Your task to perform on an android device: When is my next appointment? Image 0: 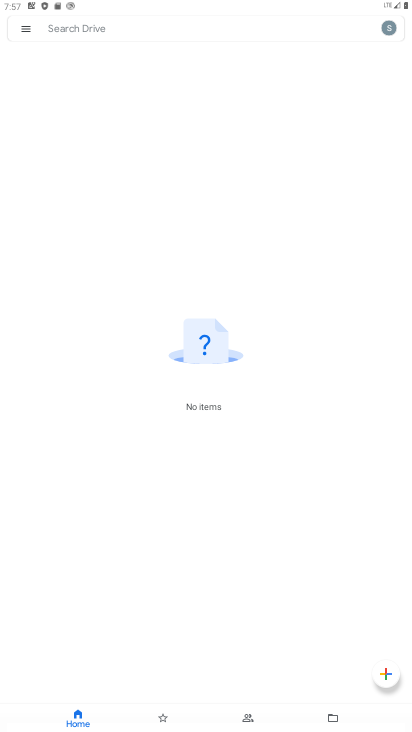
Step 0: press home button
Your task to perform on an android device: When is my next appointment? Image 1: 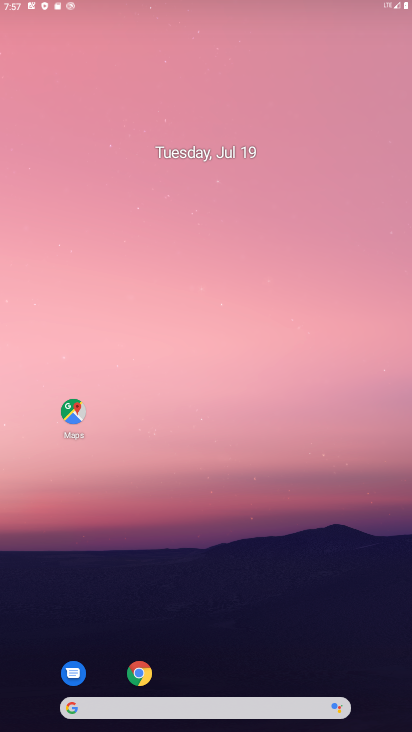
Step 1: drag from (363, 656) to (219, 59)
Your task to perform on an android device: When is my next appointment? Image 2: 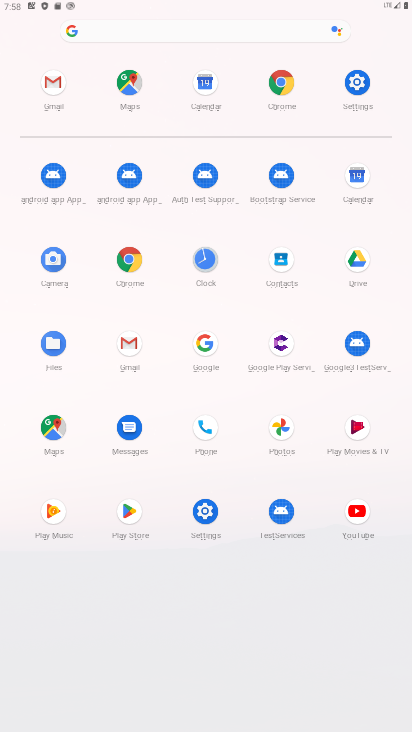
Step 2: click (355, 184)
Your task to perform on an android device: When is my next appointment? Image 3: 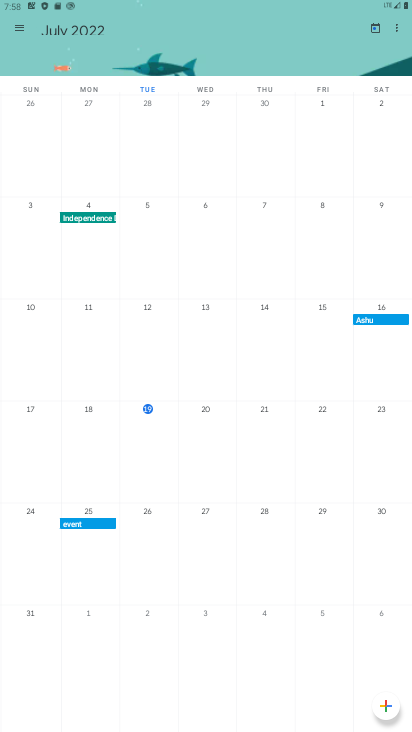
Step 3: task complete